Your task to perform on an android device: Open the map Image 0: 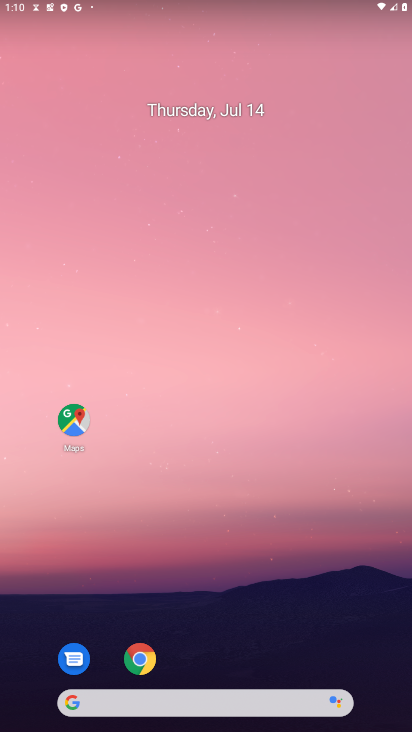
Step 0: click (399, 72)
Your task to perform on an android device: Open the map Image 1: 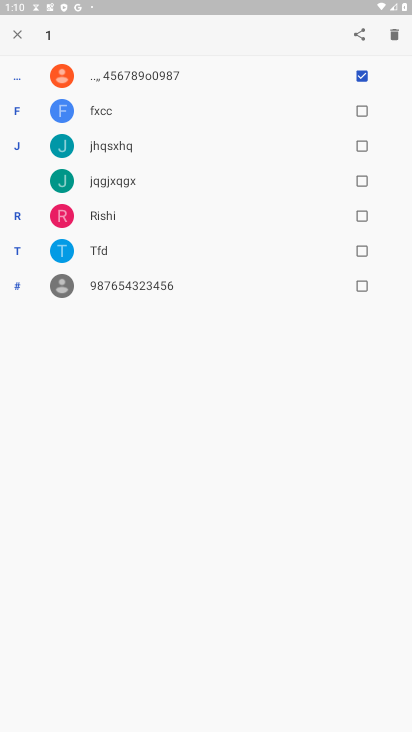
Step 1: press home button
Your task to perform on an android device: Open the map Image 2: 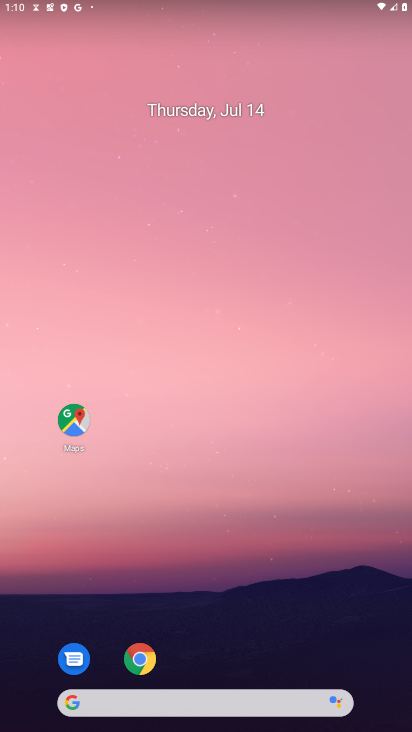
Step 2: click (71, 433)
Your task to perform on an android device: Open the map Image 3: 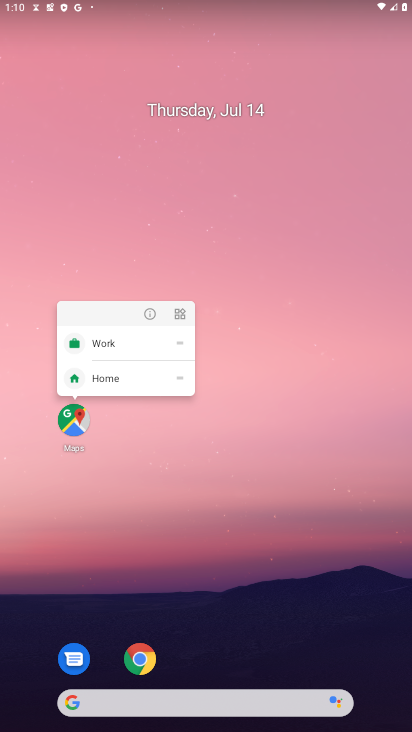
Step 3: click (52, 414)
Your task to perform on an android device: Open the map Image 4: 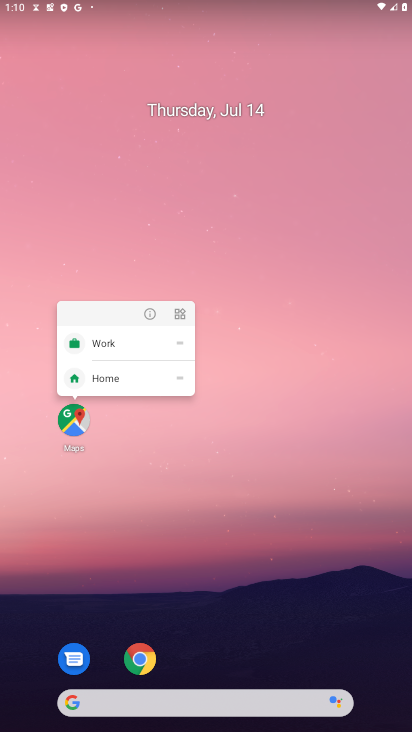
Step 4: click (51, 412)
Your task to perform on an android device: Open the map Image 5: 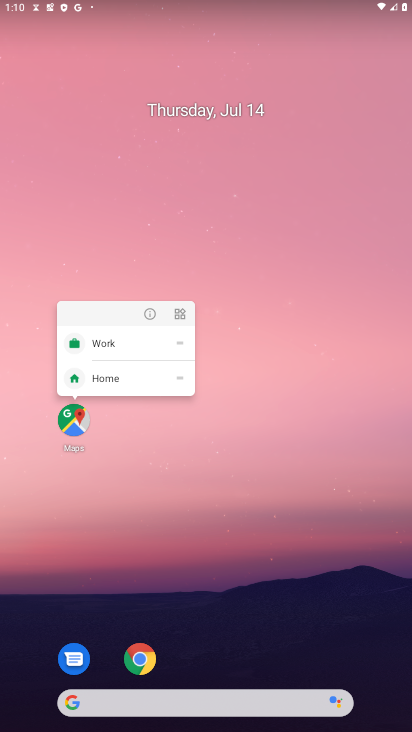
Step 5: task complete